Your task to perform on an android device: turn on bluetooth scan Image 0: 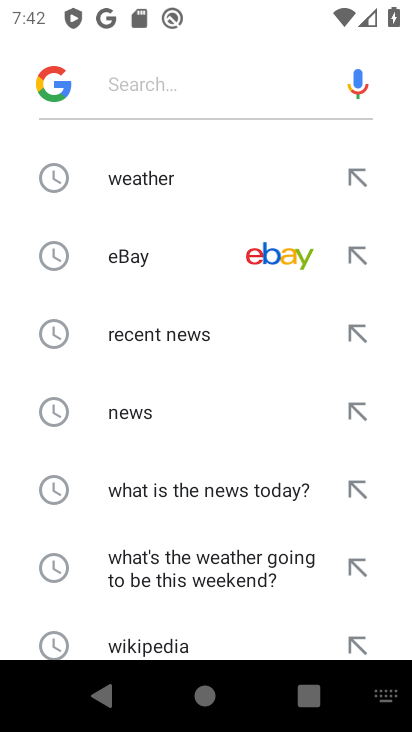
Step 0: press back button
Your task to perform on an android device: turn on bluetooth scan Image 1: 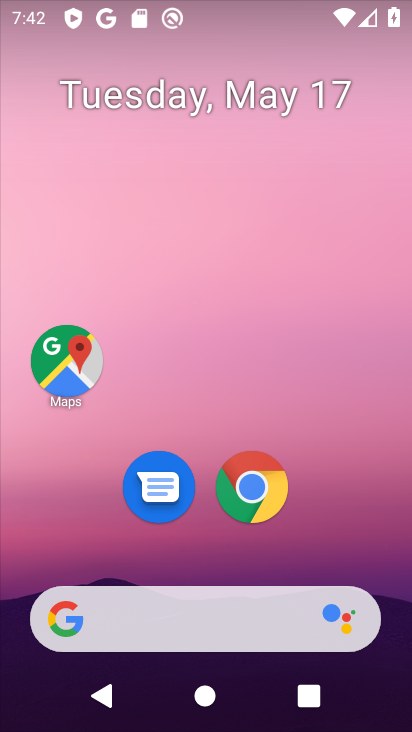
Step 1: drag from (290, 461) to (309, 115)
Your task to perform on an android device: turn on bluetooth scan Image 2: 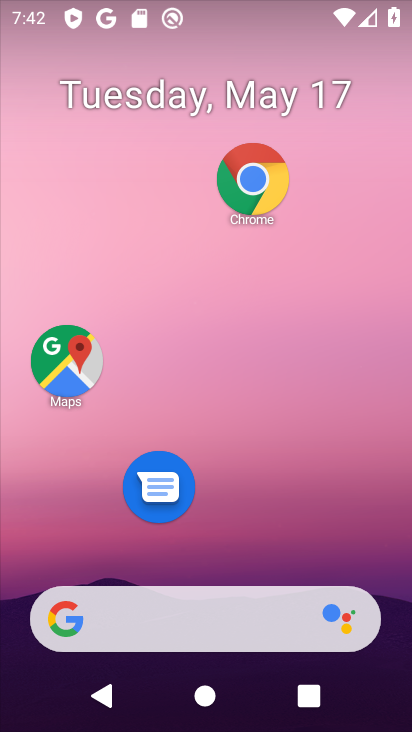
Step 2: drag from (46, 430) to (313, 431)
Your task to perform on an android device: turn on bluetooth scan Image 3: 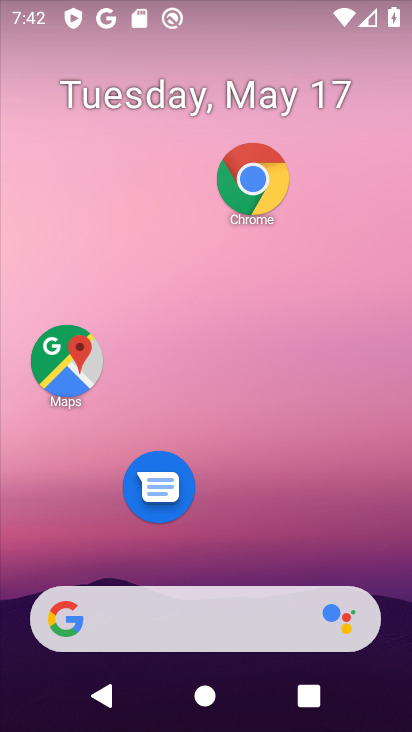
Step 3: drag from (288, 443) to (347, 77)
Your task to perform on an android device: turn on bluetooth scan Image 4: 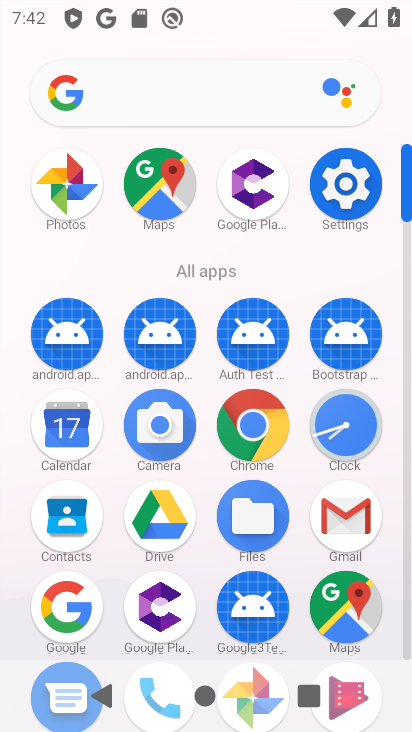
Step 4: drag from (345, 194) to (118, 221)
Your task to perform on an android device: turn on bluetooth scan Image 5: 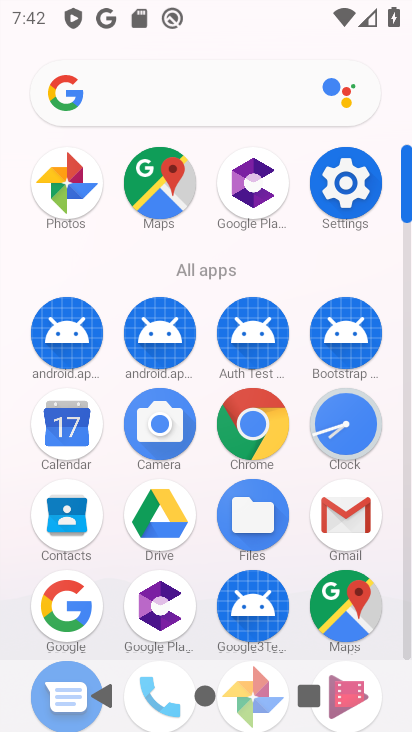
Step 5: drag from (339, 183) to (107, 195)
Your task to perform on an android device: turn on bluetooth scan Image 6: 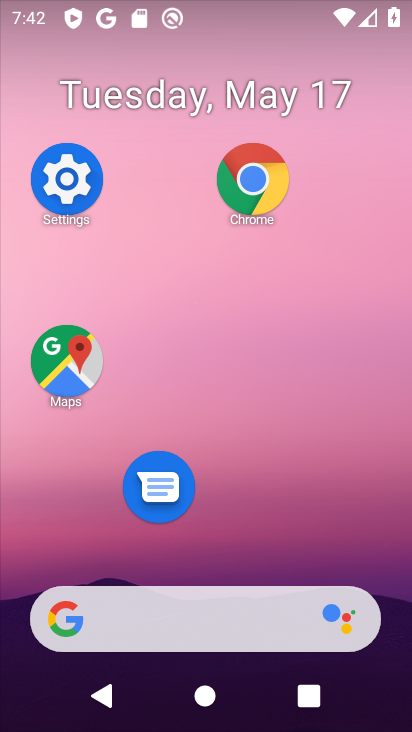
Step 6: click (62, 174)
Your task to perform on an android device: turn on bluetooth scan Image 7: 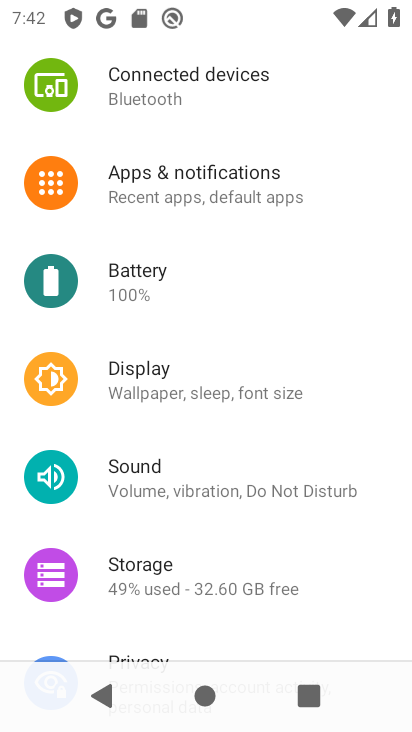
Step 7: drag from (278, 561) to (286, 271)
Your task to perform on an android device: turn on bluetooth scan Image 8: 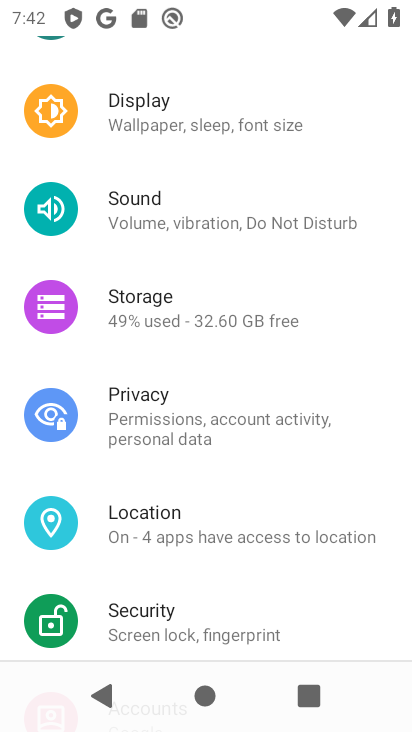
Step 8: click (249, 496)
Your task to perform on an android device: turn on bluetooth scan Image 9: 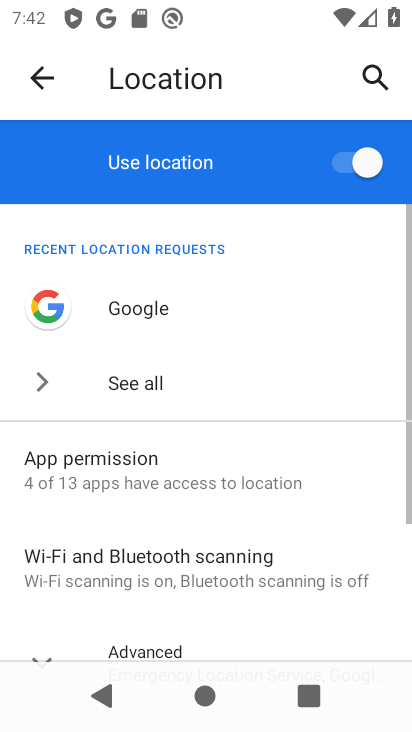
Step 9: drag from (249, 496) to (253, 236)
Your task to perform on an android device: turn on bluetooth scan Image 10: 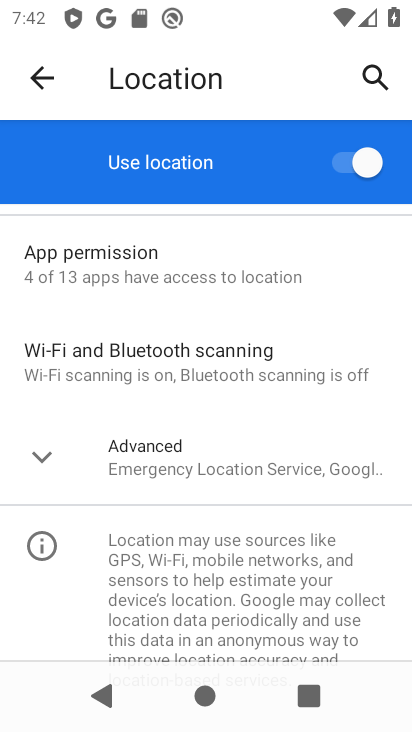
Step 10: click (252, 366)
Your task to perform on an android device: turn on bluetooth scan Image 11: 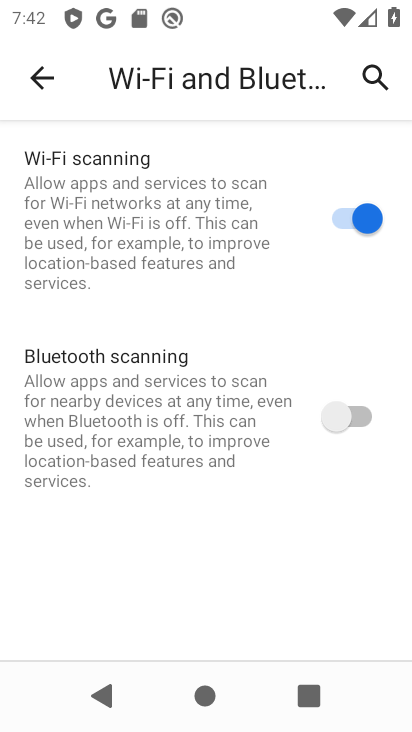
Step 11: click (327, 405)
Your task to perform on an android device: turn on bluetooth scan Image 12: 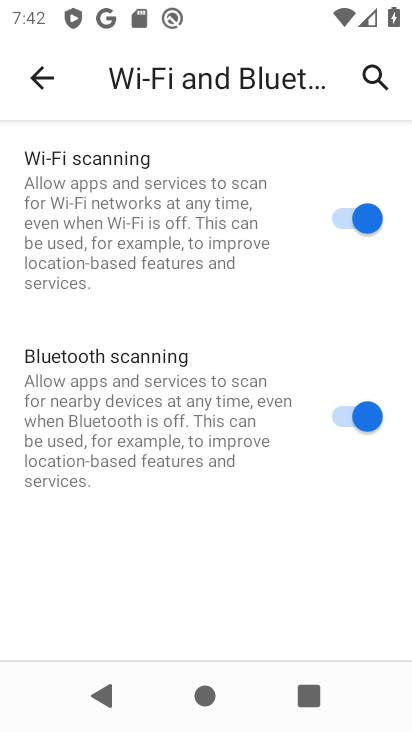
Step 12: task complete